Your task to perform on an android device: Open my contact list Image 0: 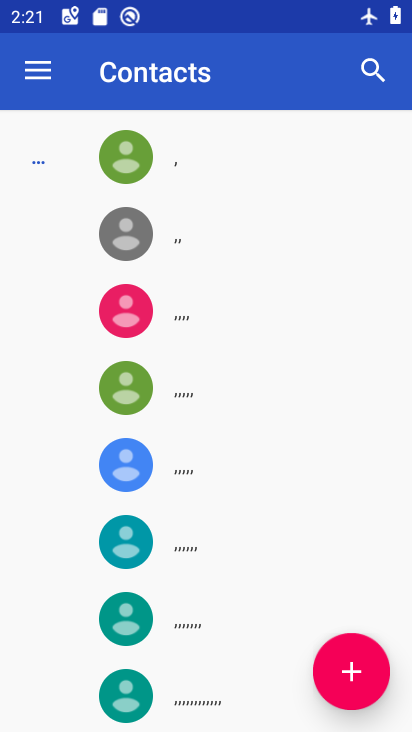
Step 0: press home button
Your task to perform on an android device: Open my contact list Image 1: 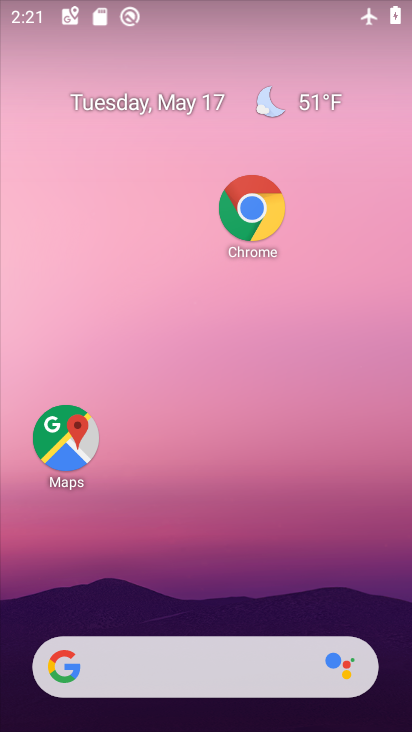
Step 1: drag from (219, 612) to (135, 83)
Your task to perform on an android device: Open my contact list Image 2: 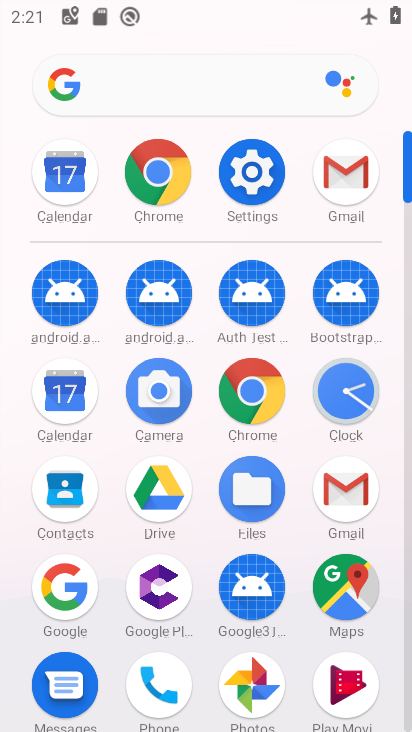
Step 2: click (166, 667)
Your task to perform on an android device: Open my contact list Image 3: 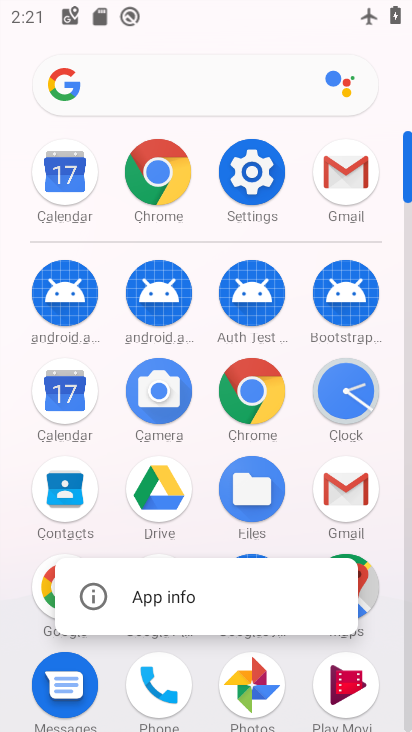
Step 3: click (166, 666)
Your task to perform on an android device: Open my contact list Image 4: 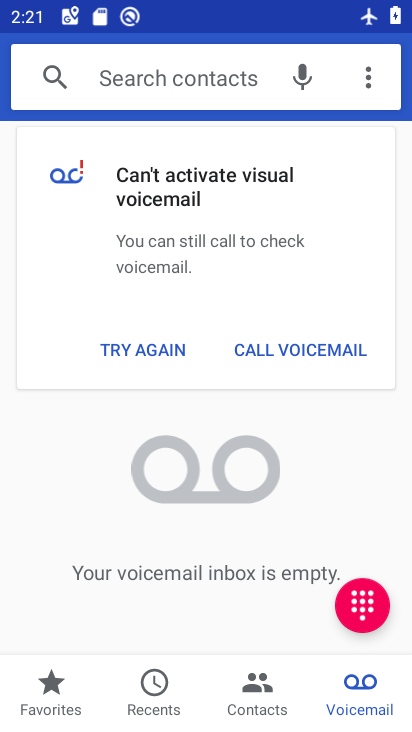
Step 4: task complete